Your task to perform on an android device: choose inbox layout in the gmail app Image 0: 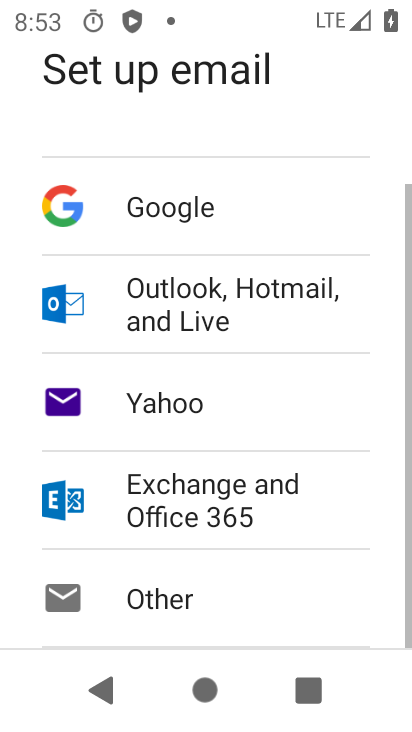
Step 0: drag from (208, 535) to (244, 72)
Your task to perform on an android device: choose inbox layout in the gmail app Image 1: 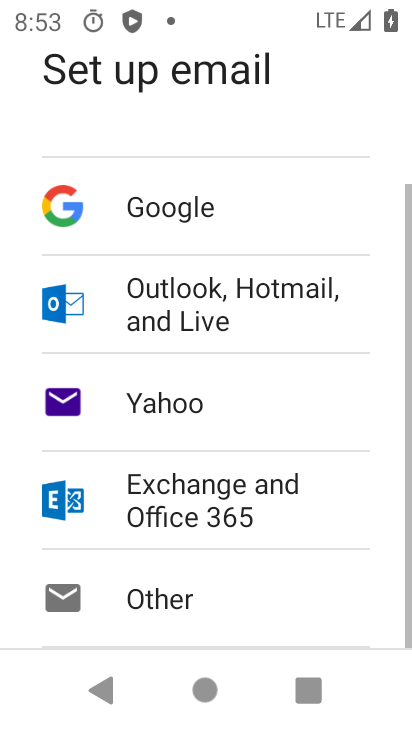
Step 1: drag from (234, 585) to (251, 286)
Your task to perform on an android device: choose inbox layout in the gmail app Image 2: 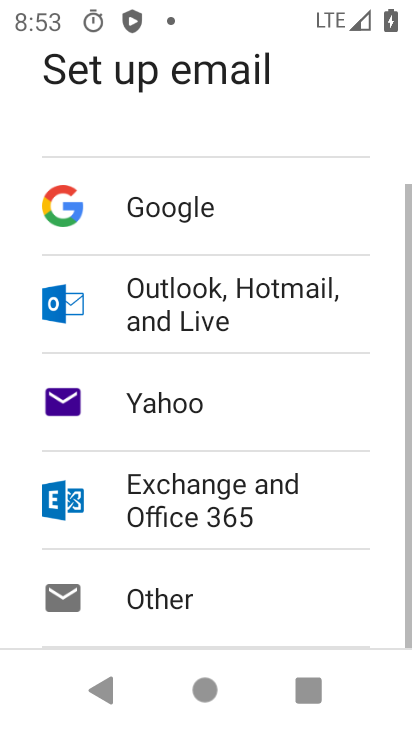
Step 2: drag from (229, 573) to (228, 400)
Your task to perform on an android device: choose inbox layout in the gmail app Image 3: 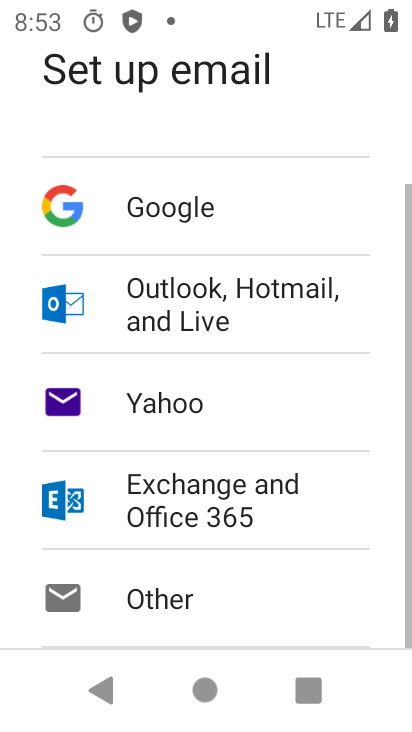
Step 3: drag from (191, 587) to (197, 449)
Your task to perform on an android device: choose inbox layout in the gmail app Image 4: 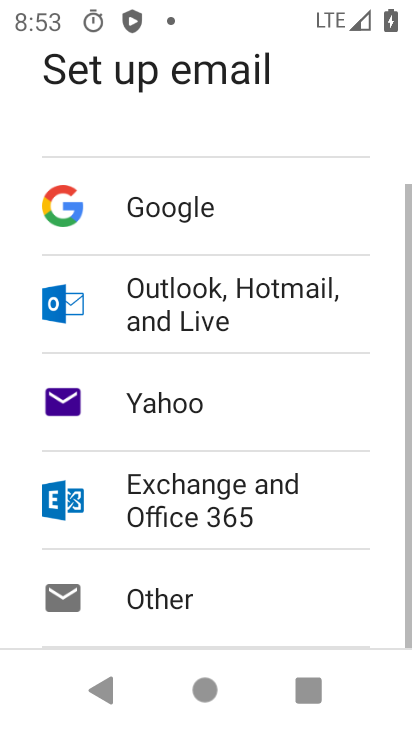
Step 4: drag from (191, 597) to (267, 323)
Your task to perform on an android device: choose inbox layout in the gmail app Image 5: 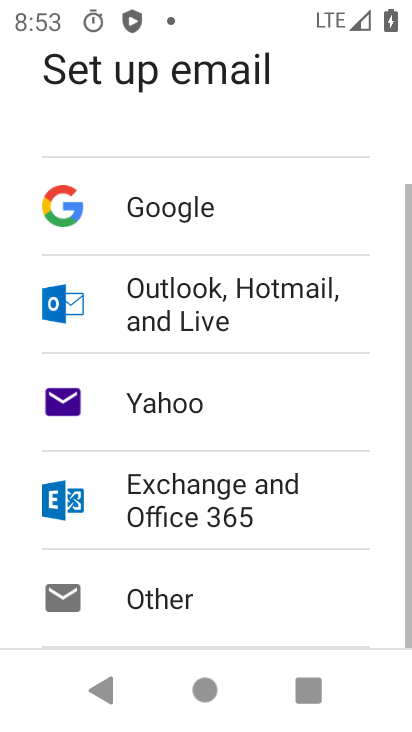
Step 5: drag from (246, 580) to (316, 72)
Your task to perform on an android device: choose inbox layout in the gmail app Image 6: 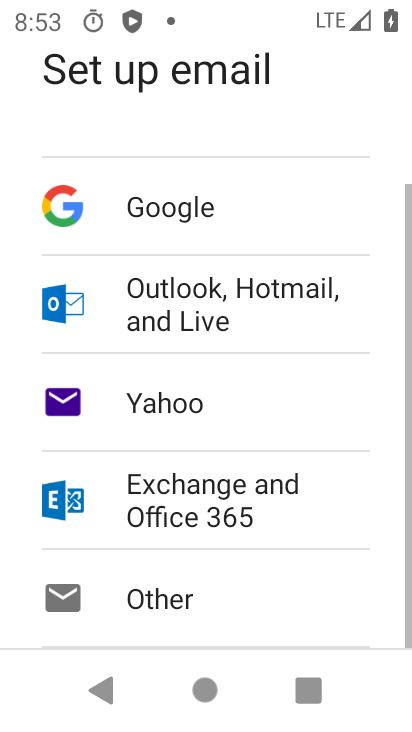
Step 6: drag from (201, 183) to (235, 548)
Your task to perform on an android device: choose inbox layout in the gmail app Image 7: 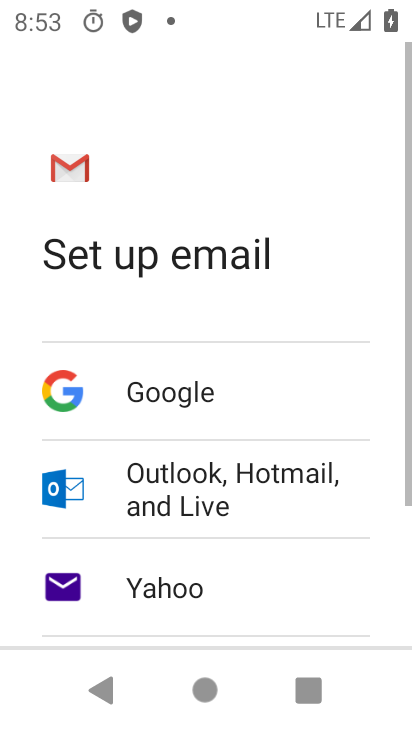
Step 7: drag from (210, 421) to (257, 72)
Your task to perform on an android device: choose inbox layout in the gmail app Image 8: 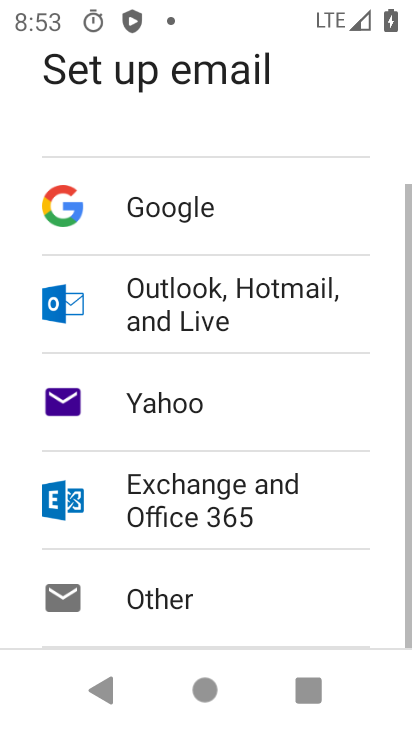
Step 8: drag from (163, 561) to (212, 408)
Your task to perform on an android device: choose inbox layout in the gmail app Image 9: 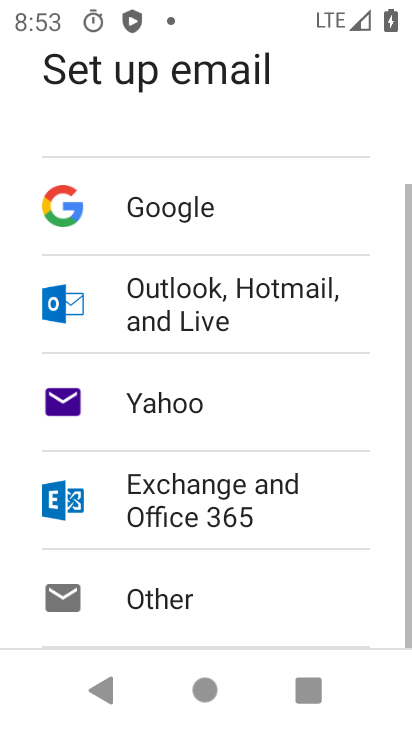
Step 9: drag from (211, 611) to (265, 321)
Your task to perform on an android device: choose inbox layout in the gmail app Image 10: 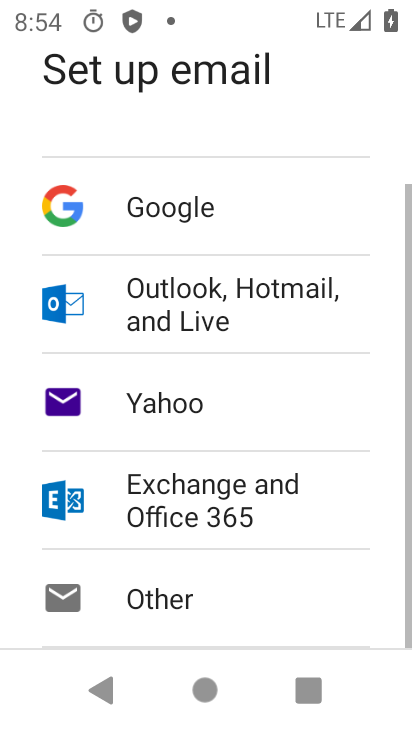
Step 10: drag from (219, 230) to (226, 512)
Your task to perform on an android device: choose inbox layout in the gmail app Image 11: 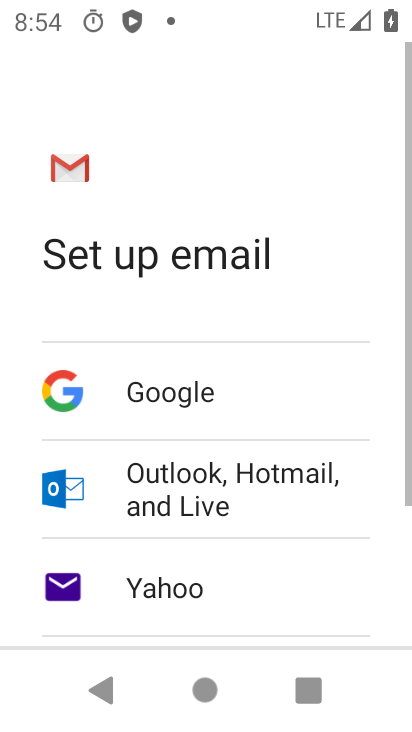
Step 11: drag from (212, 504) to (283, 208)
Your task to perform on an android device: choose inbox layout in the gmail app Image 12: 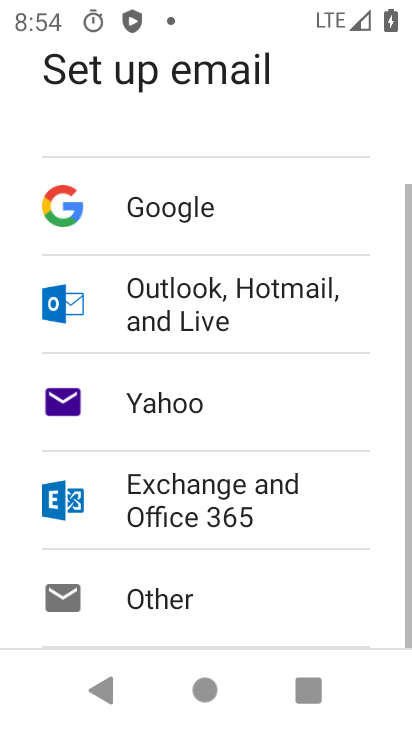
Step 12: press home button
Your task to perform on an android device: choose inbox layout in the gmail app Image 13: 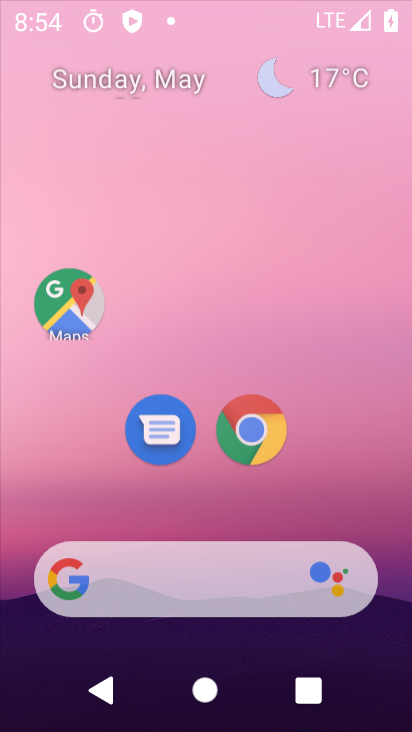
Step 13: drag from (229, 602) to (299, 40)
Your task to perform on an android device: choose inbox layout in the gmail app Image 14: 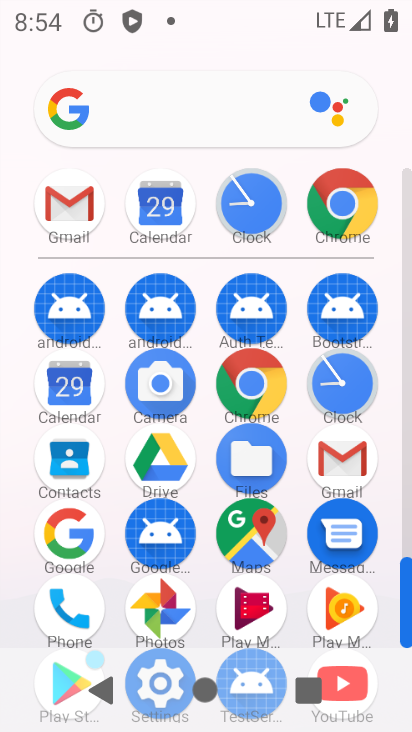
Step 14: click (347, 472)
Your task to perform on an android device: choose inbox layout in the gmail app Image 15: 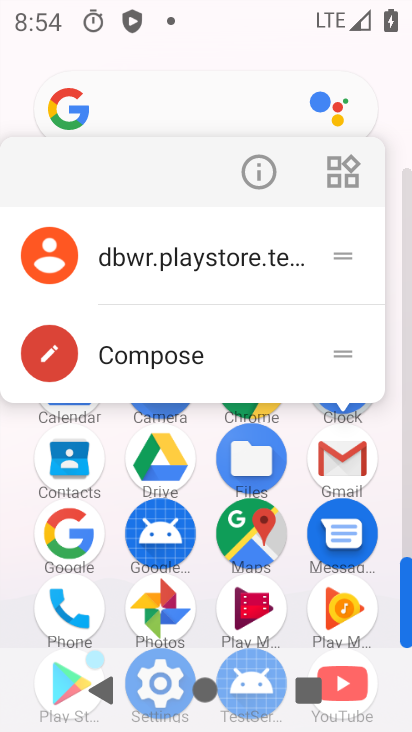
Step 15: click (269, 154)
Your task to perform on an android device: choose inbox layout in the gmail app Image 16: 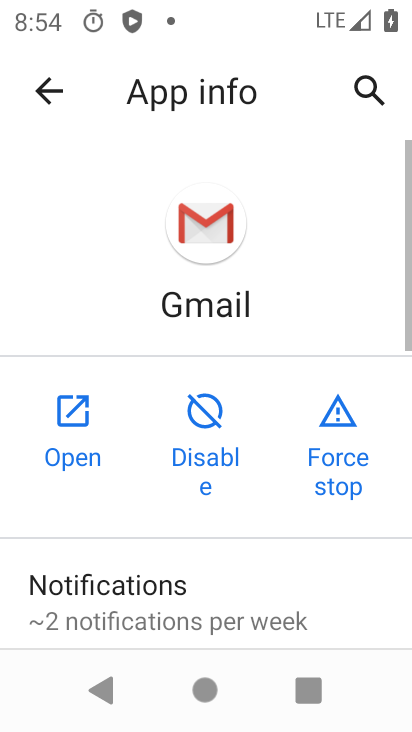
Step 16: click (73, 429)
Your task to perform on an android device: choose inbox layout in the gmail app Image 17: 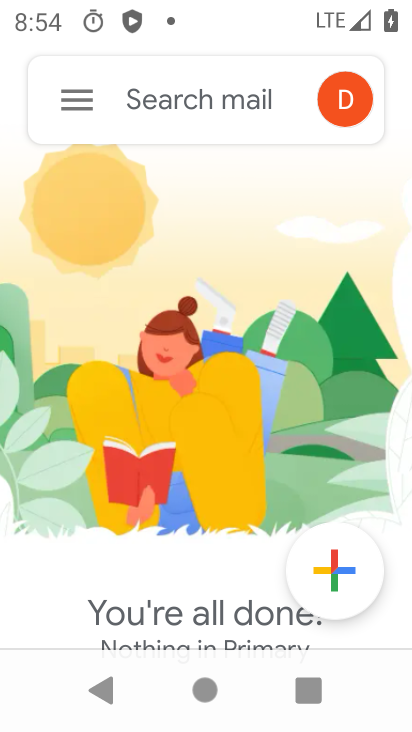
Step 17: click (69, 94)
Your task to perform on an android device: choose inbox layout in the gmail app Image 18: 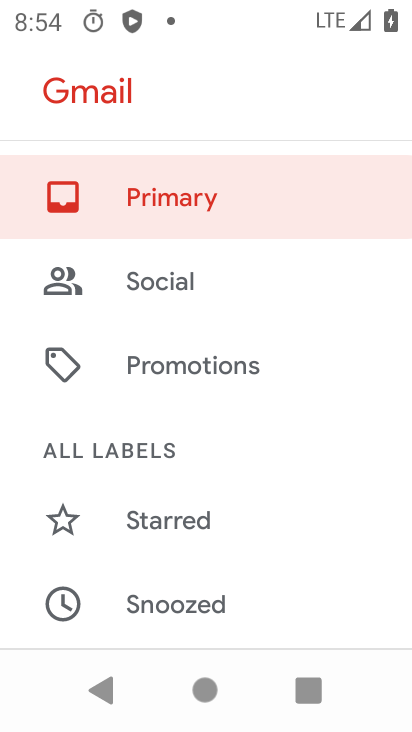
Step 18: drag from (219, 527) to (225, 246)
Your task to perform on an android device: choose inbox layout in the gmail app Image 19: 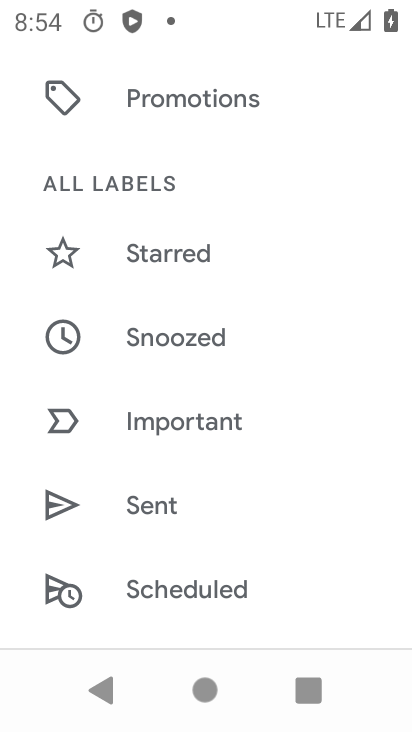
Step 19: drag from (236, 565) to (316, 719)
Your task to perform on an android device: choose inbox layout in the gmail app Image 20: 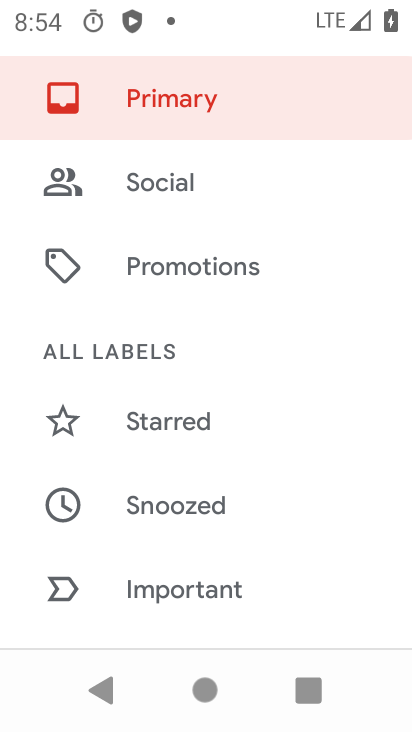
Step 20: click (160, 109)
Your task to perform on an android device: choose inbox layout in the gmail app Image 21: 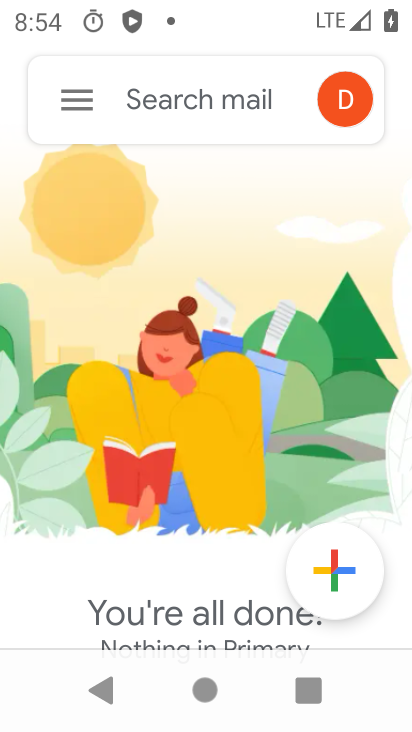
Step 21: task complete